Your task to perform on an android device: manage bookmarks in the chrome app Image 0: 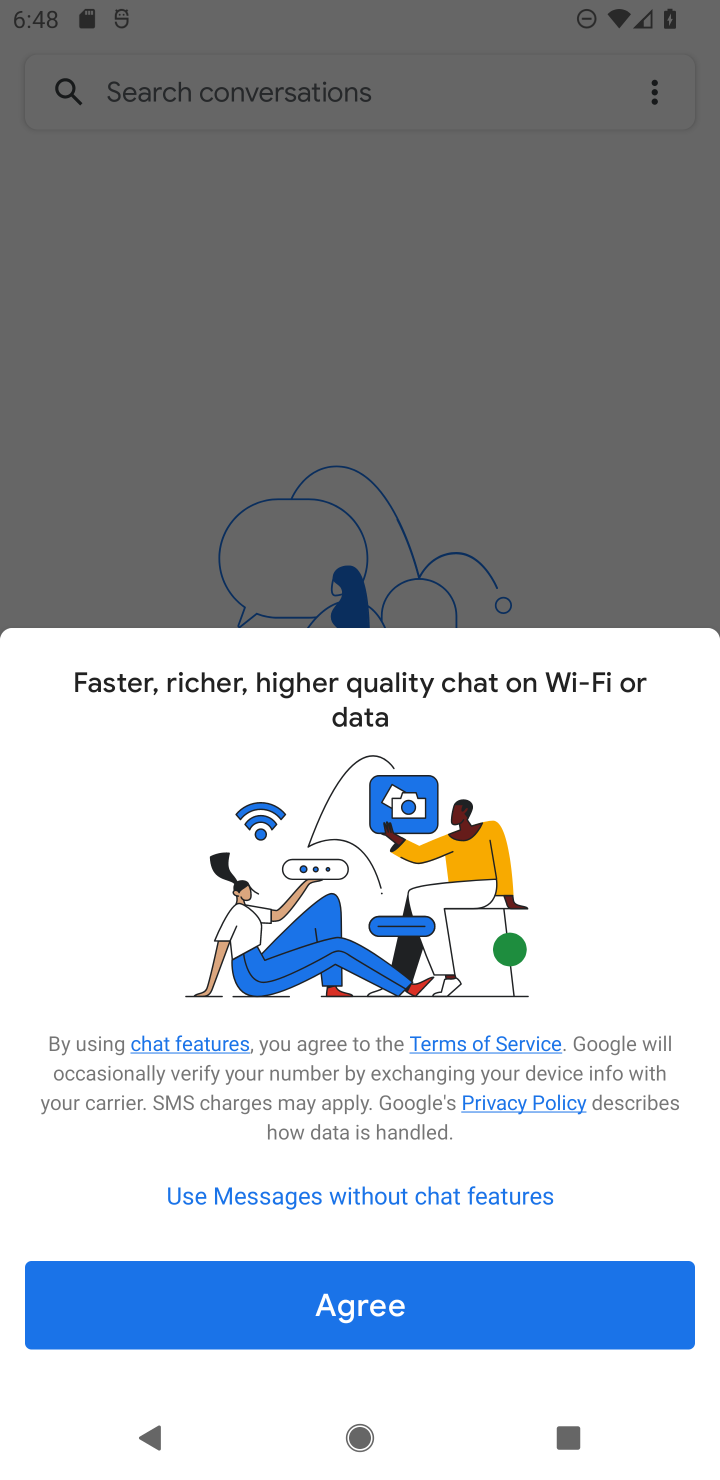
Step 0: press home button
Your task to perform on an android device: manage bookmarks in the chrome app Image 1: 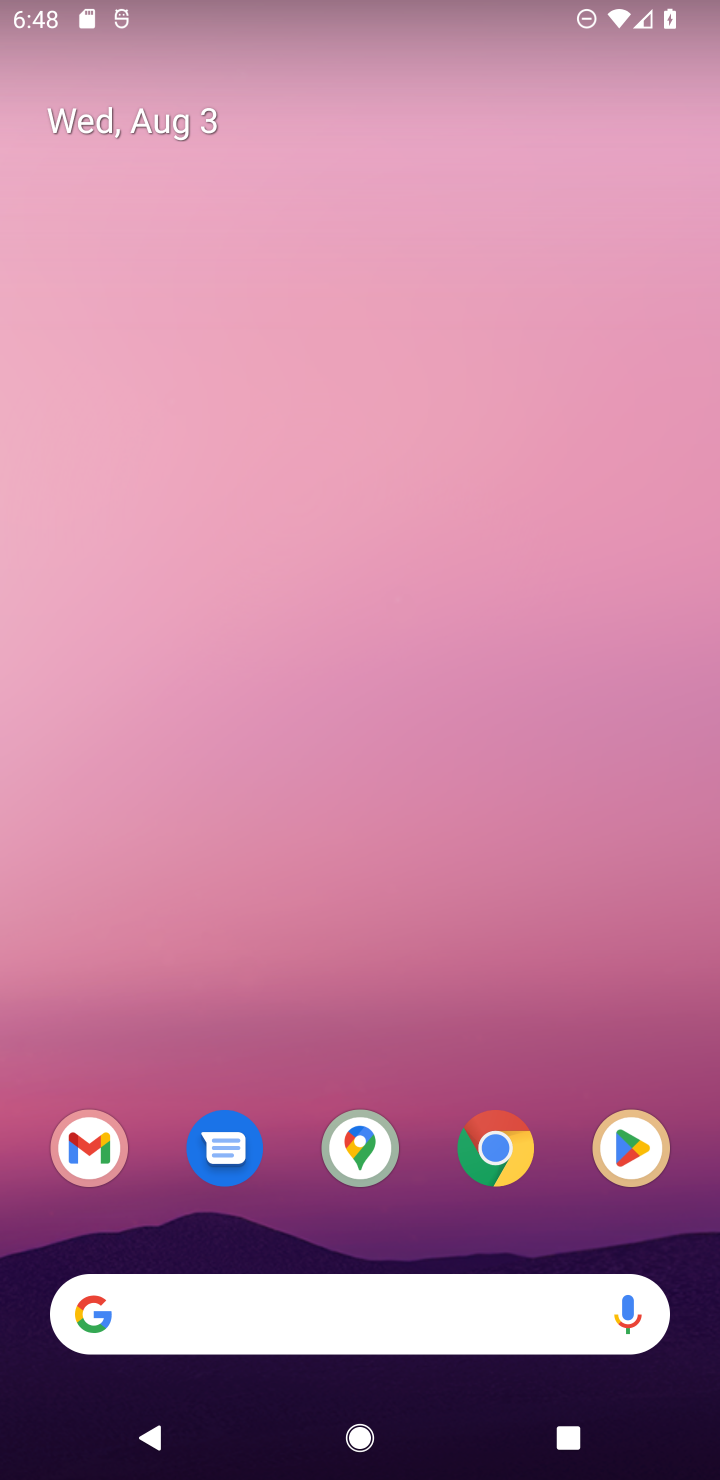
Step 1: click (491, 1154)
Your task to perform on an android device: manage bookmarks in the chrome app Image 2: 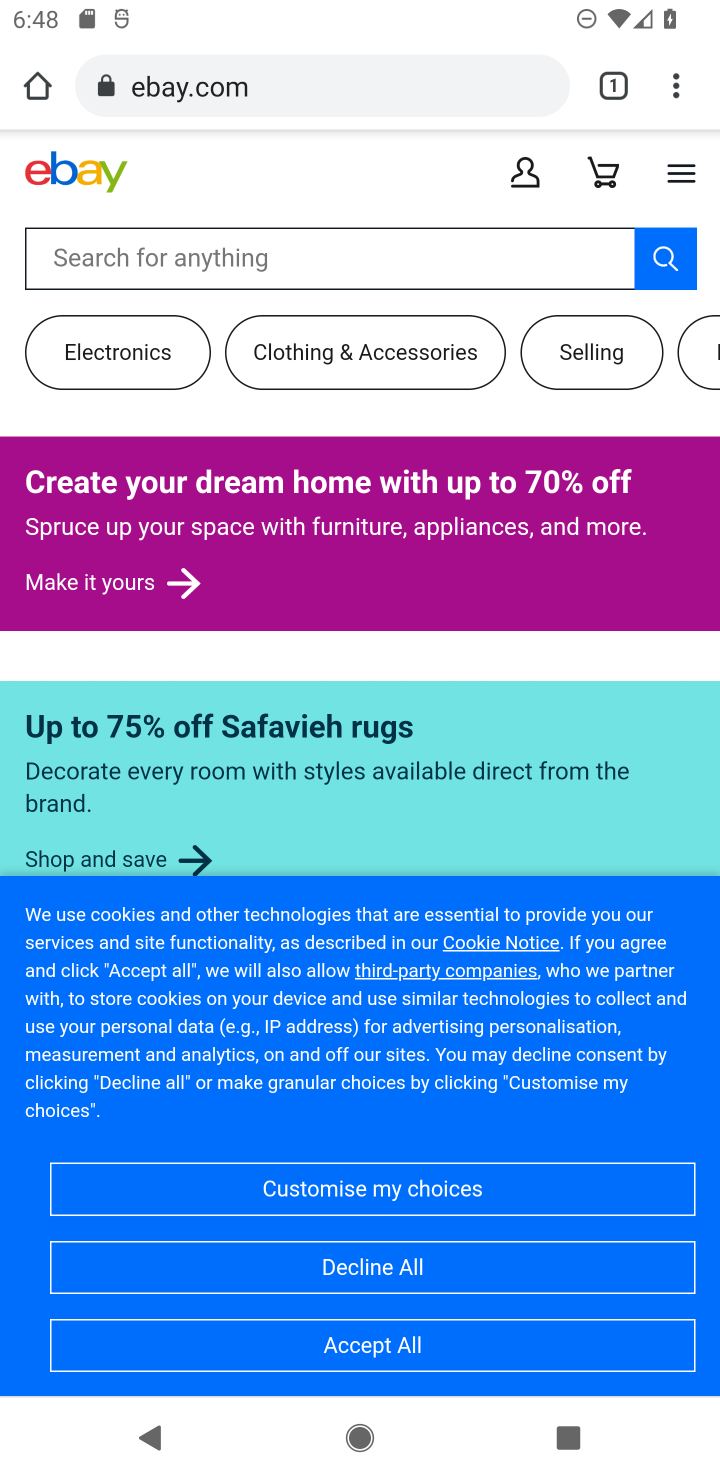
Step 2: click (676, 70)
Your task to perform on an android device: manage bookmarks in the chrome app Image 3: 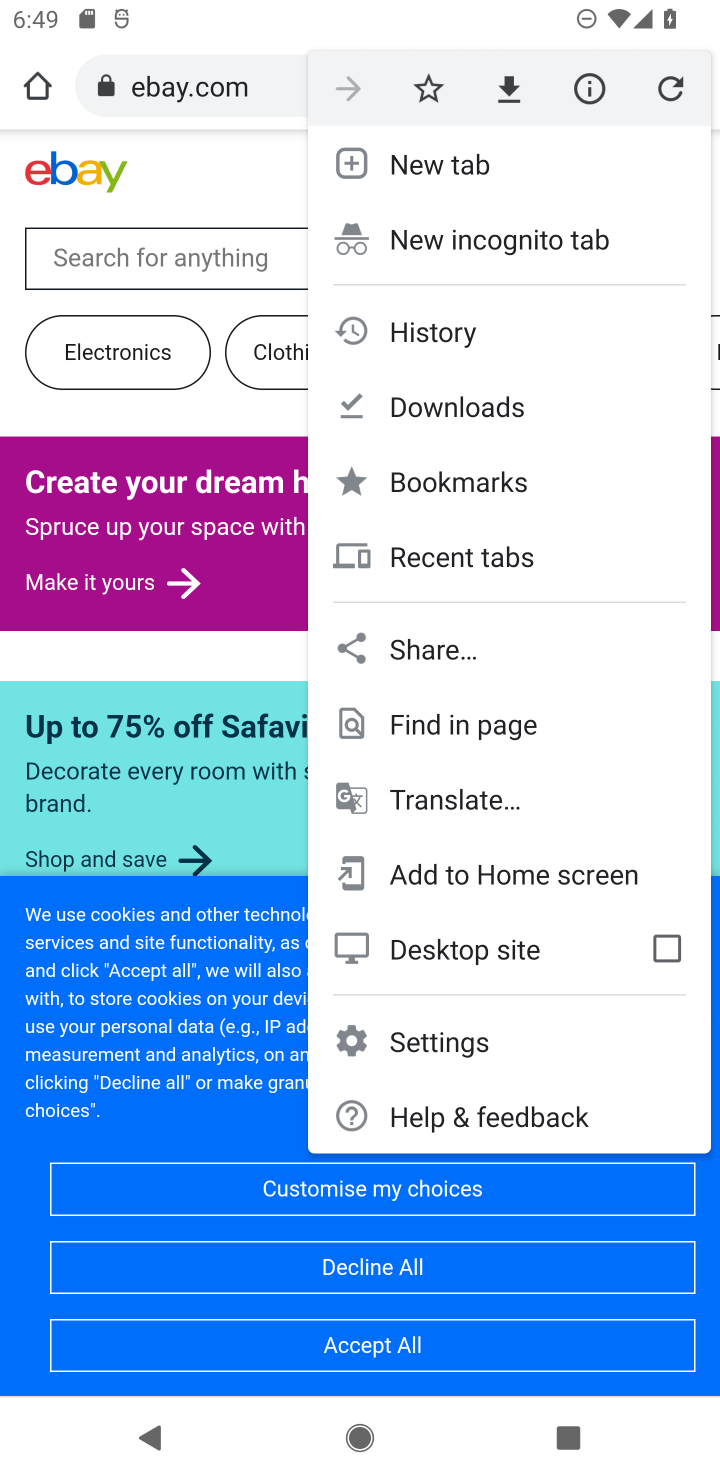
Step 3: click (416, 489)
Your task to perform on an android device: manage bookmarks in the chrome app Image 4: 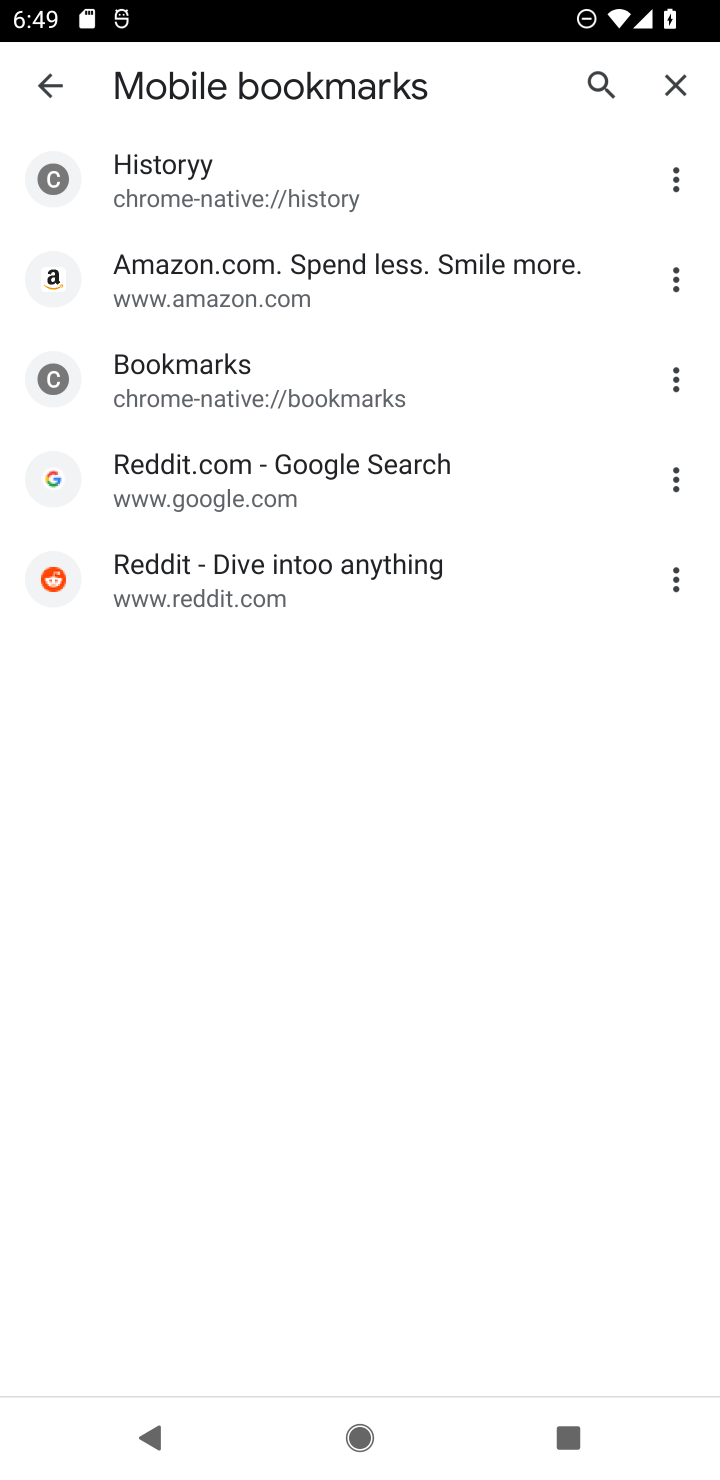
Step 4: click (675, 181)
Your task to perform on an android device: manage bookmarks in the chrome app Image 5: 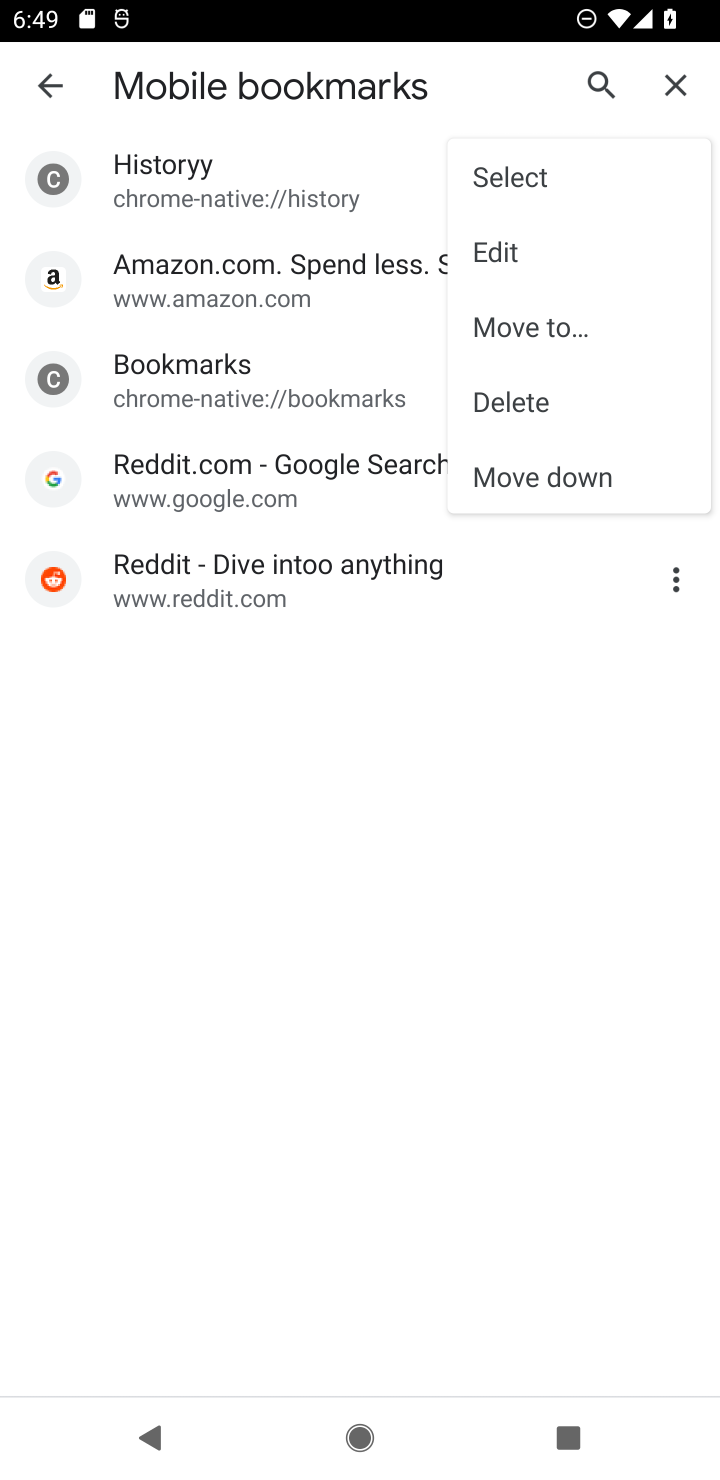
Step 5: click (530, 385)
Your task to perform on an android device: manage bookmarks in the chrome app Image 6: 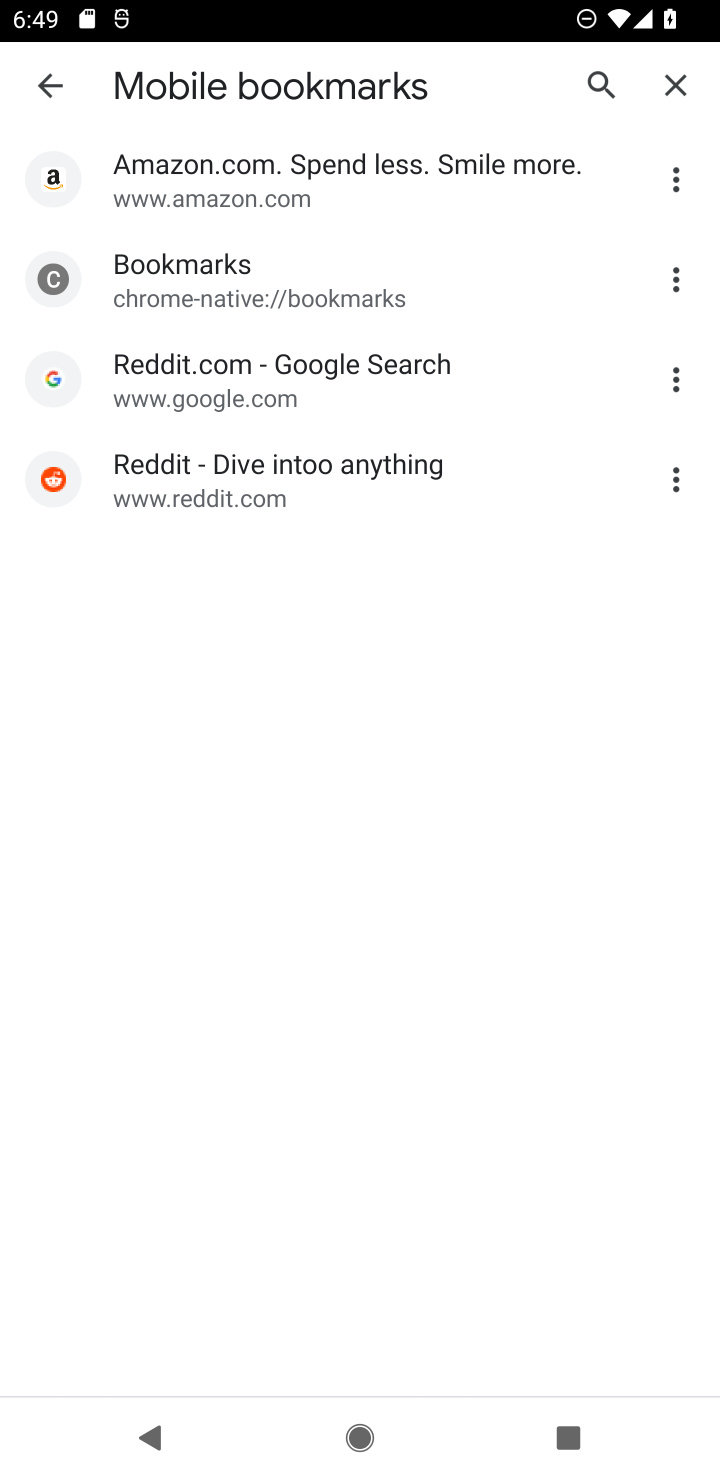
Step 6: task complete